Your task to perform on an android device: open sync settings in chrome Image 0: 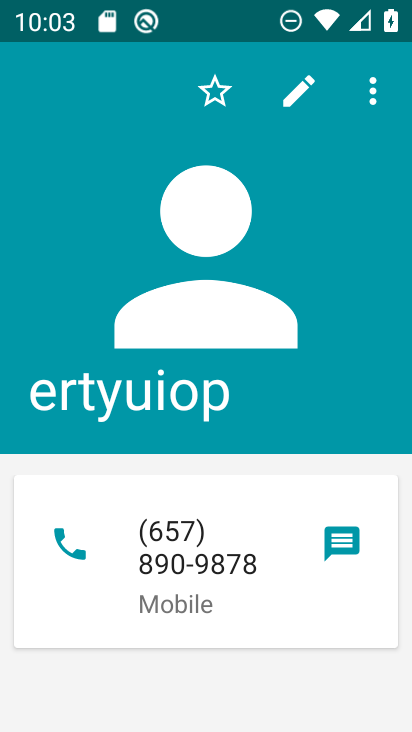
Step 0: press home button
Your task to perform on an android device: open sync settings in chrome Image 1: 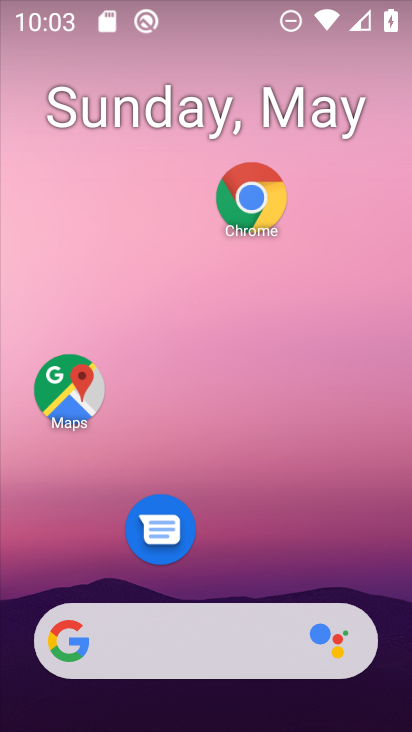
Step 1: click (261, 198)
Your task to perform on an android device: open sync settings in chrome Image 2: 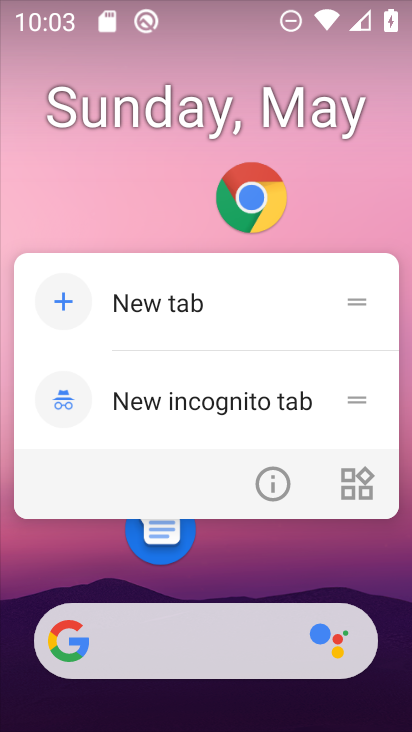
Step 2: click (252, 211)
Your task to perform on an android device: open sync settings in chrome Image 3: 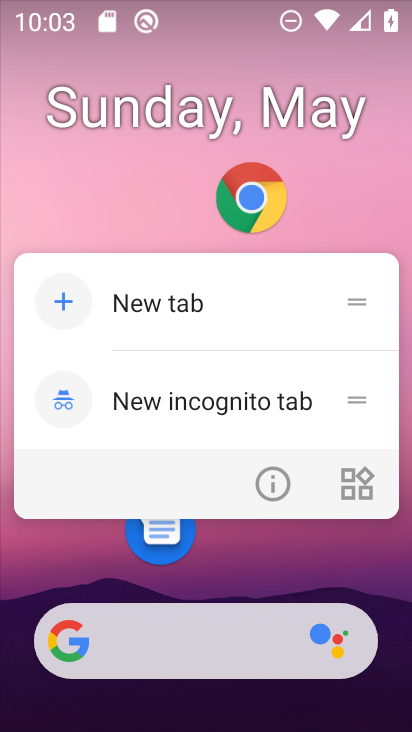
Step 3: click (252, 211)
Your task to perform on an android device: open sync settings in chrome Image 4: 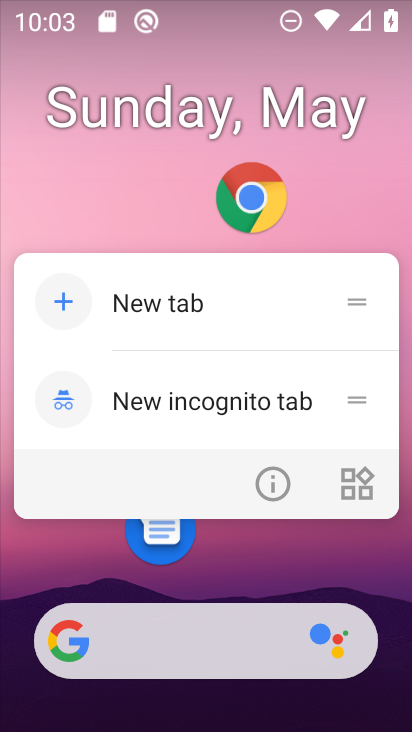
Step 4: click (256, 195)
Your task to perform on an android device: open sync settings in chrome Image 5: 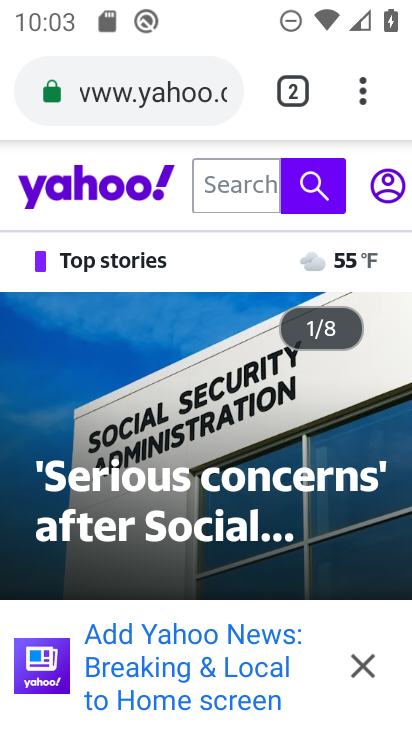
Step 5: click (362, 74)
Your task to perform on an android device: open sync settings in chrome Image 6: 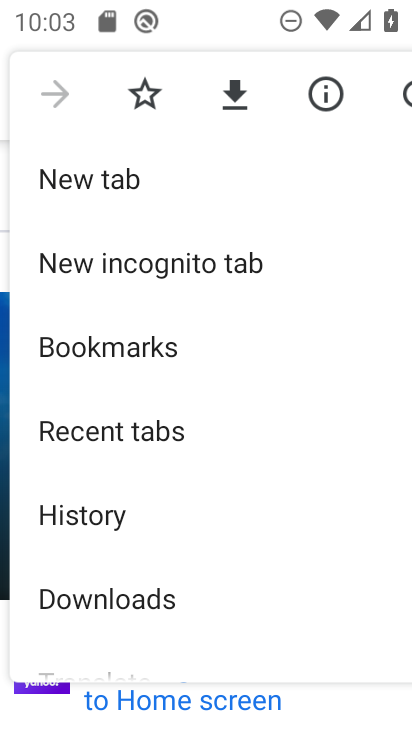
Step 6: drag from (136, 566) to (207, 238)
Your task to perform on an android device: open sync settings in chrome Image 7: 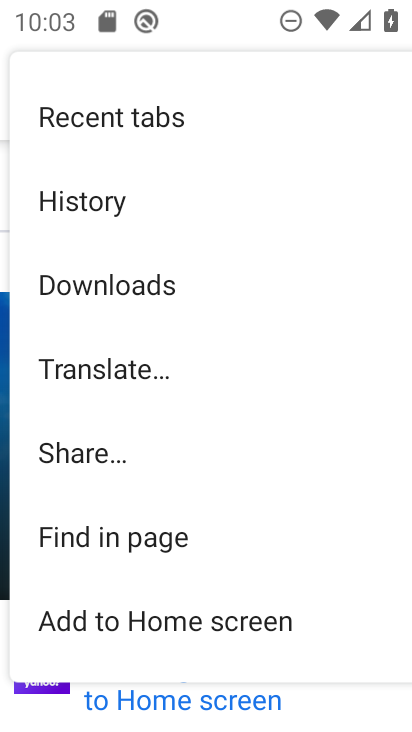
Step 7: drag from (113, 577) to (159, 354)
Your task to perform on an android device: open sync settings in chrome Image 8: 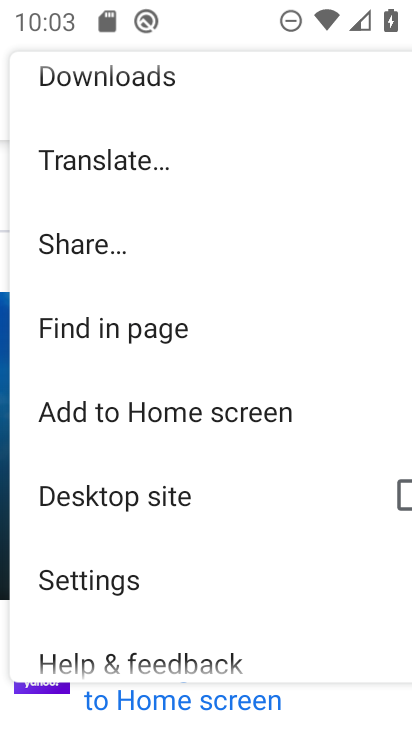
Step 8: click (131, 575)
Your task to perform on an android device: open sync settings in chrome Image 9: 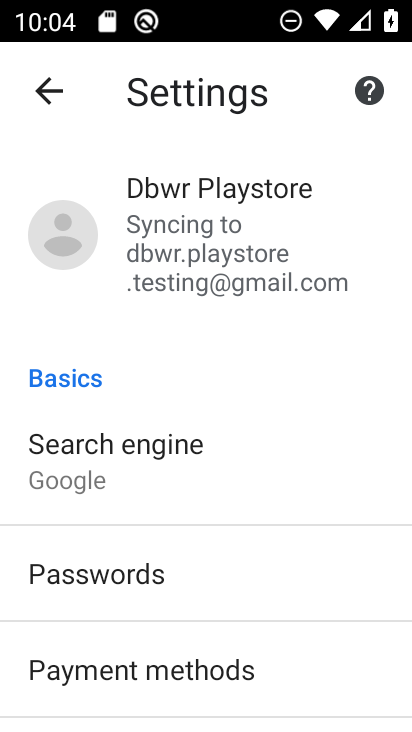
Step 9: click (207, 255)
Your task to perform on an android device: open sync settings in chrome Image 10: 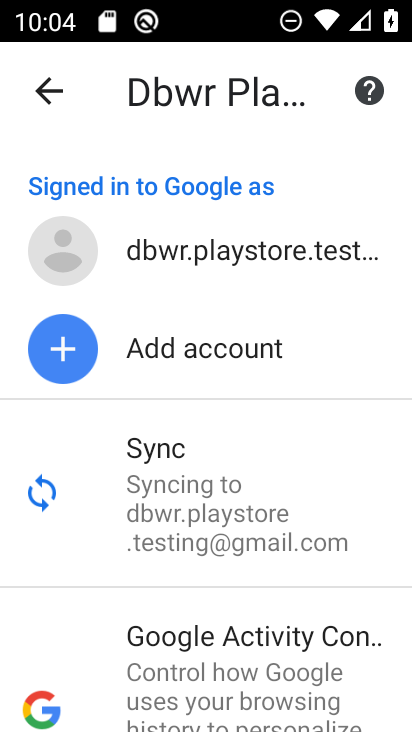
Step 10: click (164, 503)
Your task to perform on an android device: open sync settings in chrome Image 11: 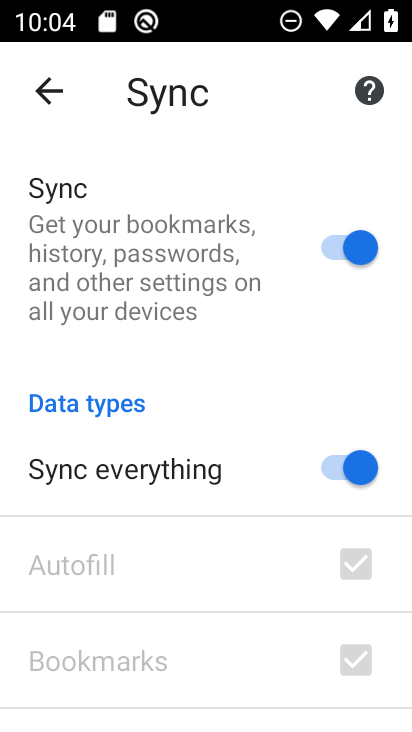
Step 11: task complete